Your task to perform on an android device: check battery use Image 0: 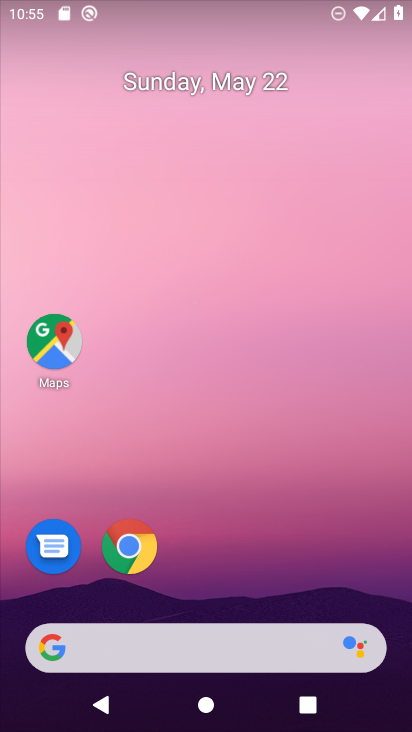
Step 0: drag from (212, 593) to (233, 164)
Your task to perform on an android device: check battery use Image 1: 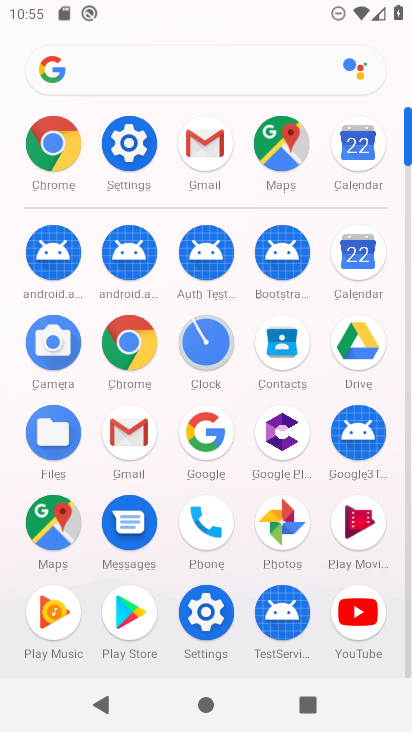
Step 1: click (132, 156)
Your task to perform on an android device: check battery use Image 2: 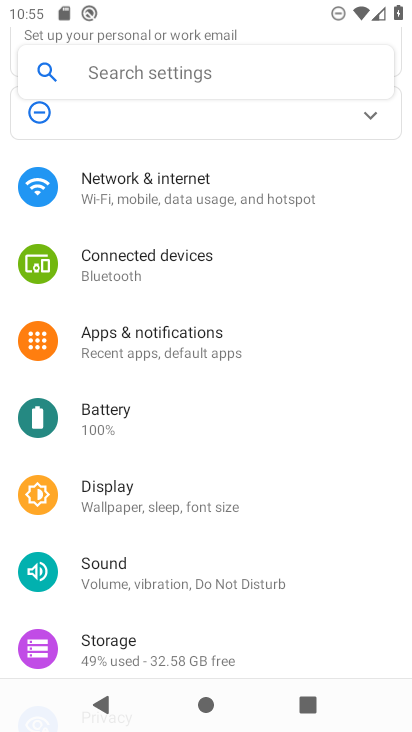
Step 2: click (129, 406)
Your task to perform on an android device: check battery use Image 3: 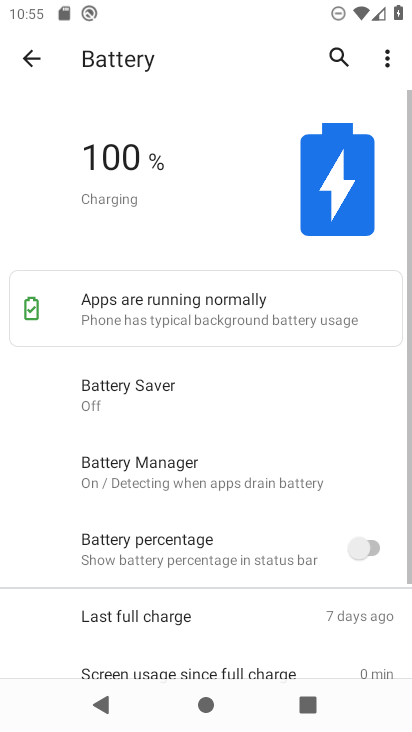
Step 3: click (388, 66)
Your task to perform on an android device: check battery use Image 4: 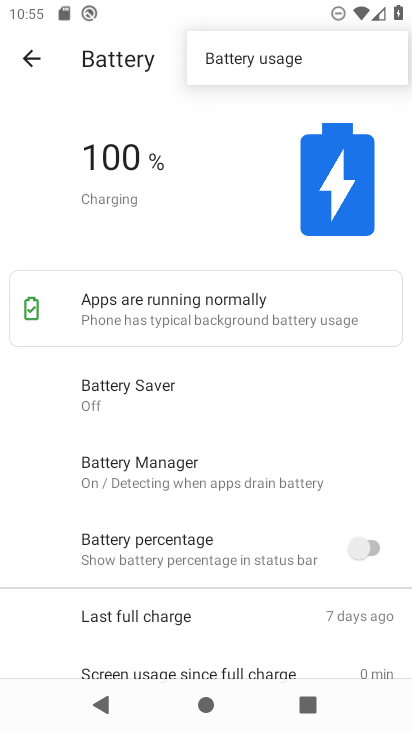
Step 4: click (296, 60)
Your task to perform on an android device: check battery use Image 5: 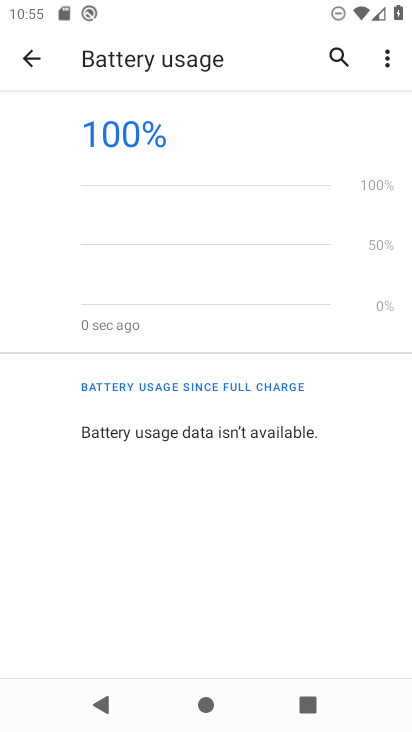
Step 5: task complete